Your task to perform on an android device: Search for logitech g903 on ebay, select the first entry, and add it to the cart. Image 0: 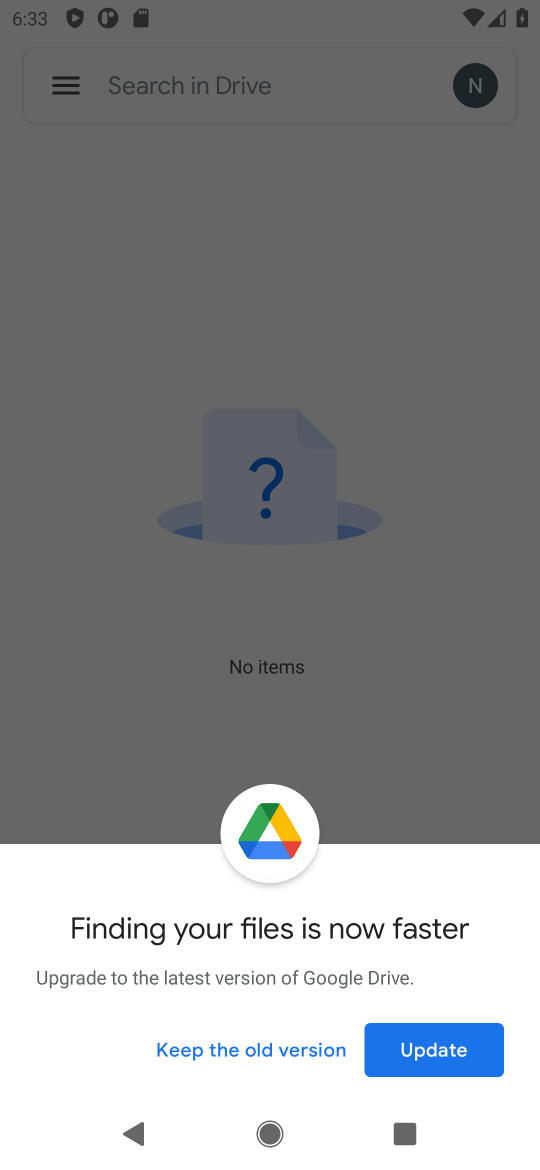
Step 0: press home button
Your task to perform on an android device: Search for logitech g903 on ebay, select the first entry, and add it to the cart. Image 1: 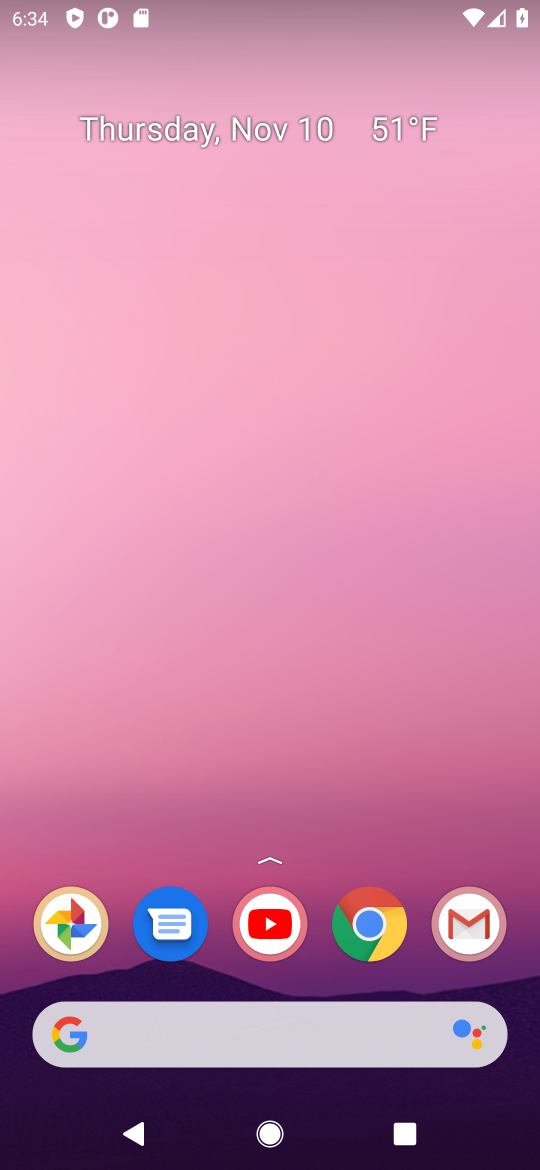
Step 1: click (368, 932)
Your task to perform on an android device: Search for logitech g903 on ebay, select the first entry, and add it to the cart. Image 2: 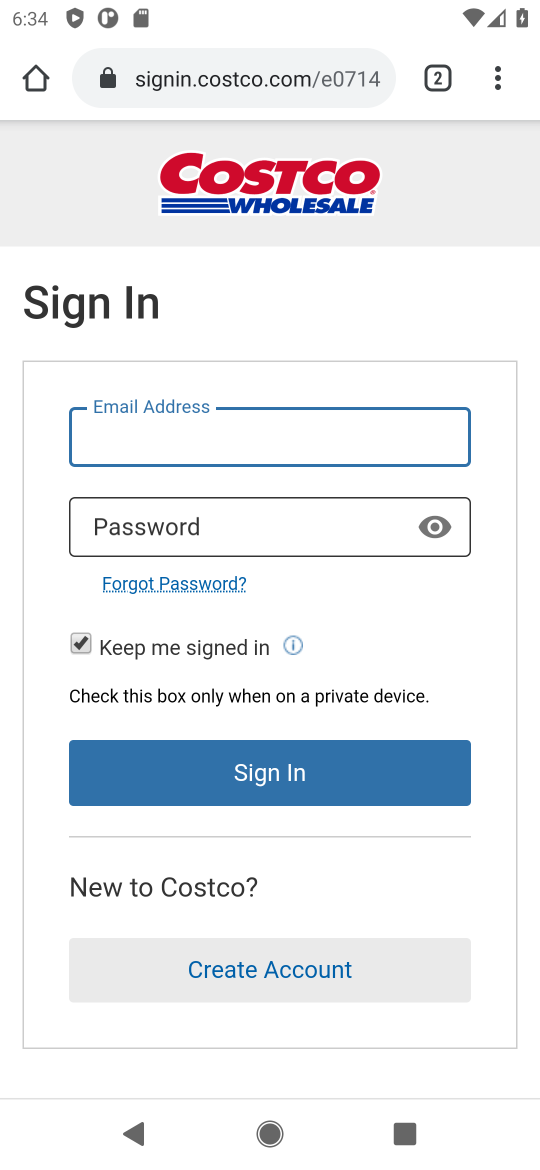
Step 2: click (304, 84)
Your task to perform on an android device: Search for logitech g903 on ebay, select the first entry, and add it to the cart. Image 3: 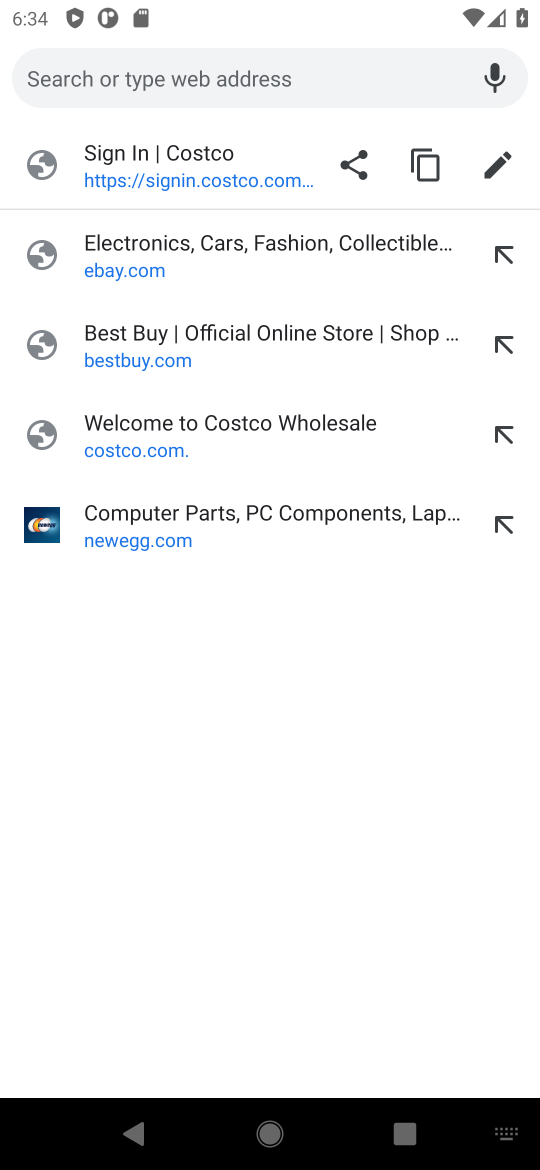
Step 3: click (143, 266)
Your task to perform on an android device: Search for logitech g903 on ebay, select the first entry, and add it to the cart. Image 4: 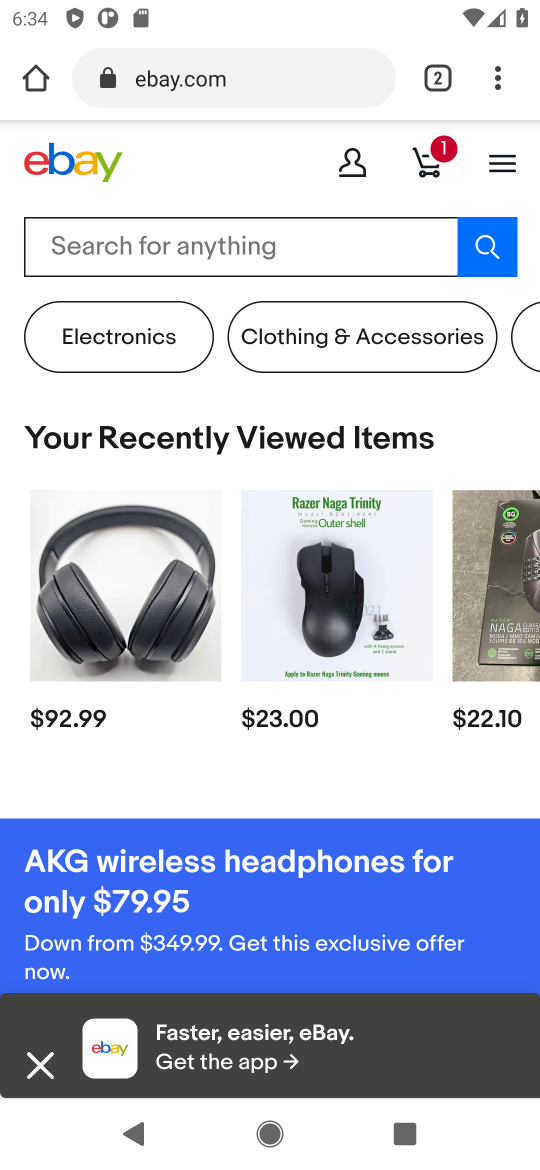
Step 4: click (154, 267)
Your task to perform on an android device: Search for logitech g903 on ebay, select the first entry, and add it to the cart. Image 5: 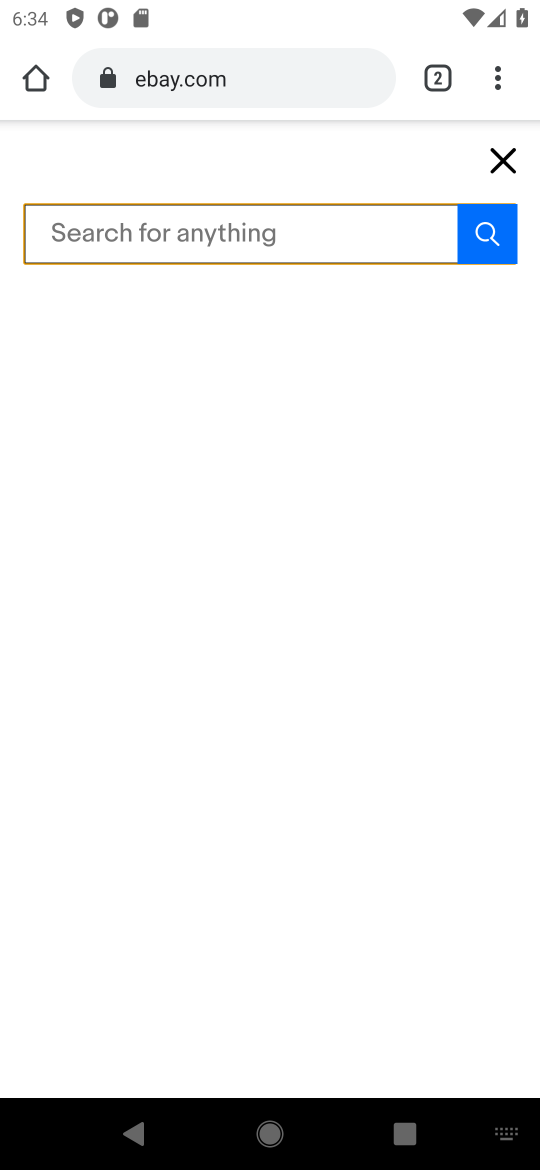
Step 5: type "logitech g903"
Your task to perform on an android device: Search for logitech g903 on ebay, select the first entry, and add it to the cart. Image 6: 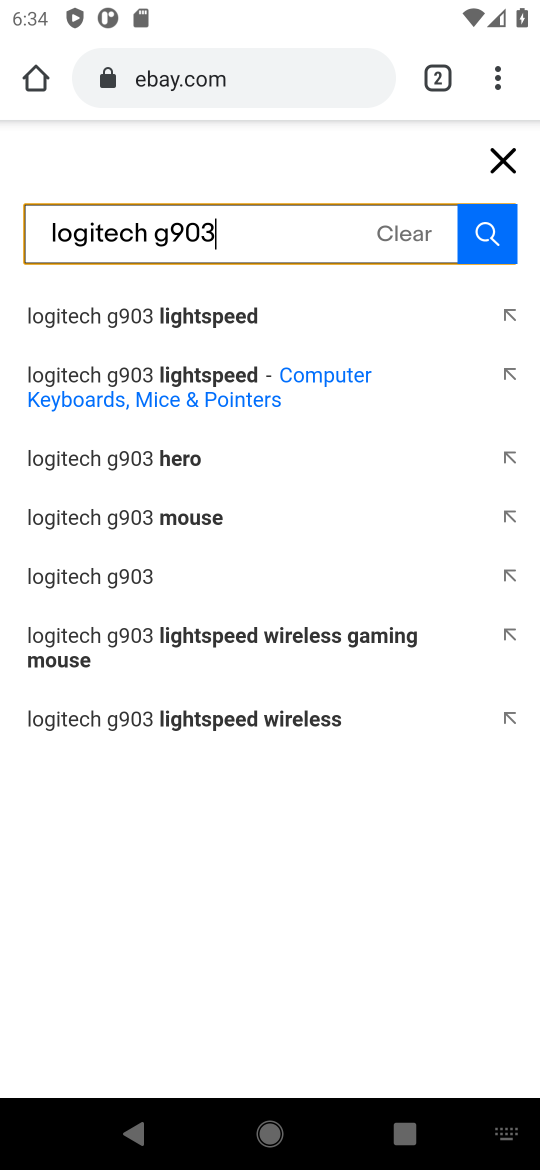
Step 6: click (90, 576)
Your task to perform on an android device: Search for logitech g903 on ebay, select the first entry, and add it to the cart. Image 7: 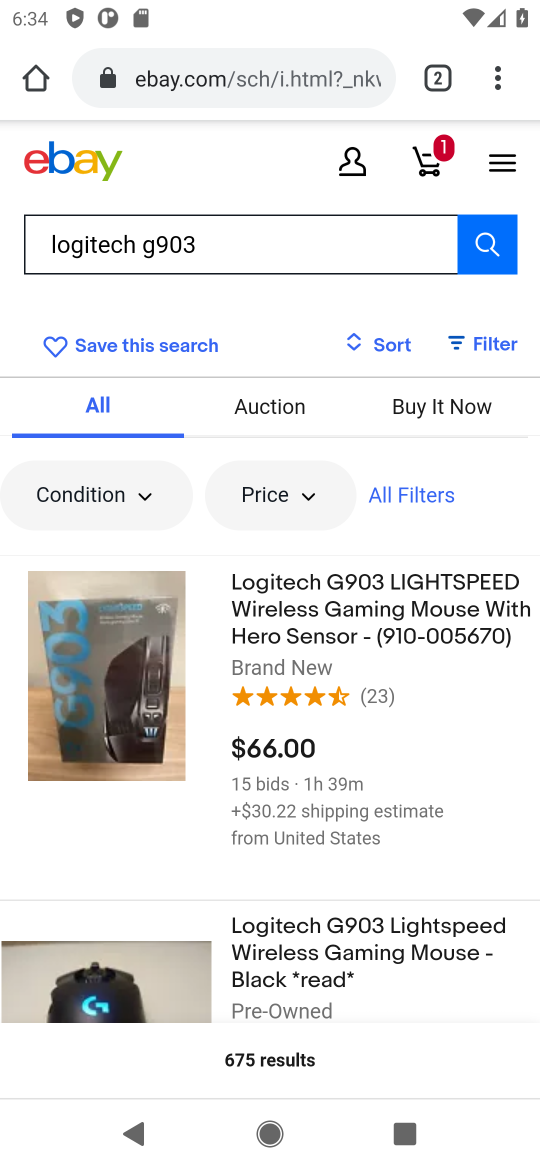
Step 7: click (218, 781)
Your task to perform on an android device: Search for logitech g903 on ebay, select the first entry, and add it to the cart. Image 8: 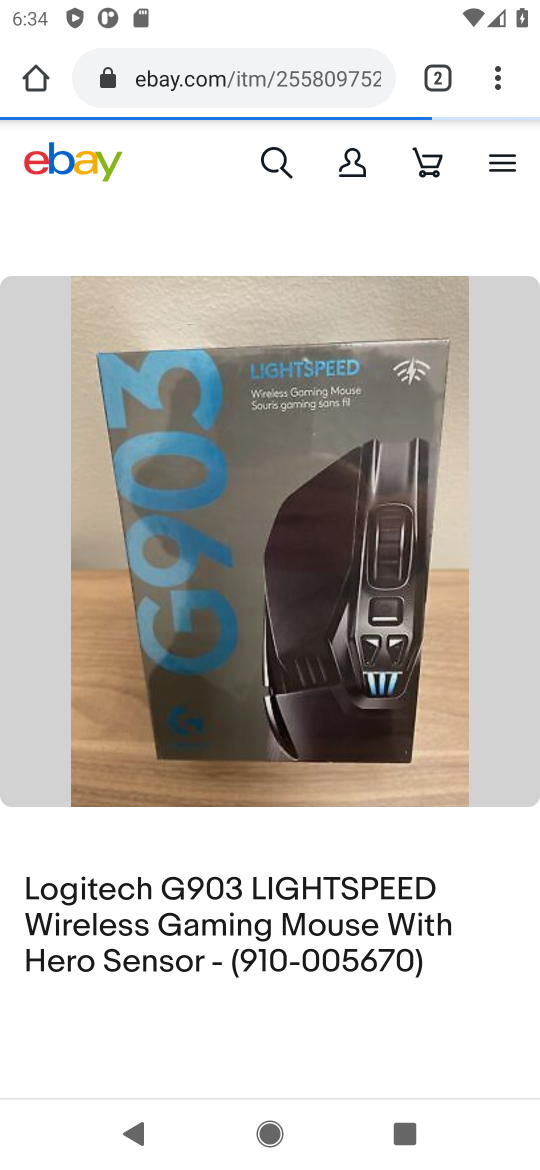
Step 8: task complete